Your task to perform on an android device: install app "Booking.com: Hotels and more" Image 0: 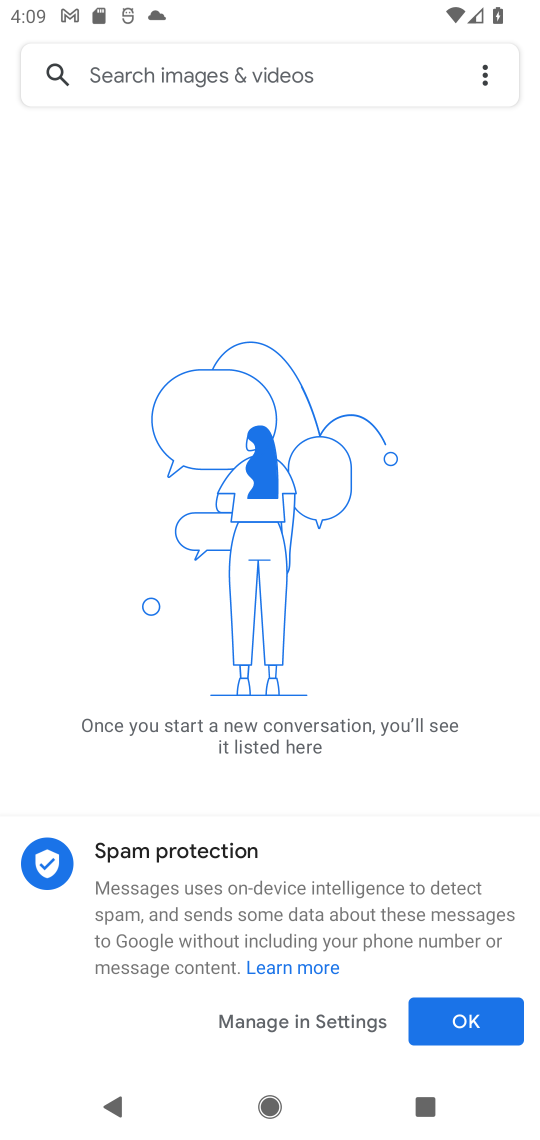
Step 0: press home button
Your task to perform on an android device: install app "Booking.com: Hotels and more" Image 1: 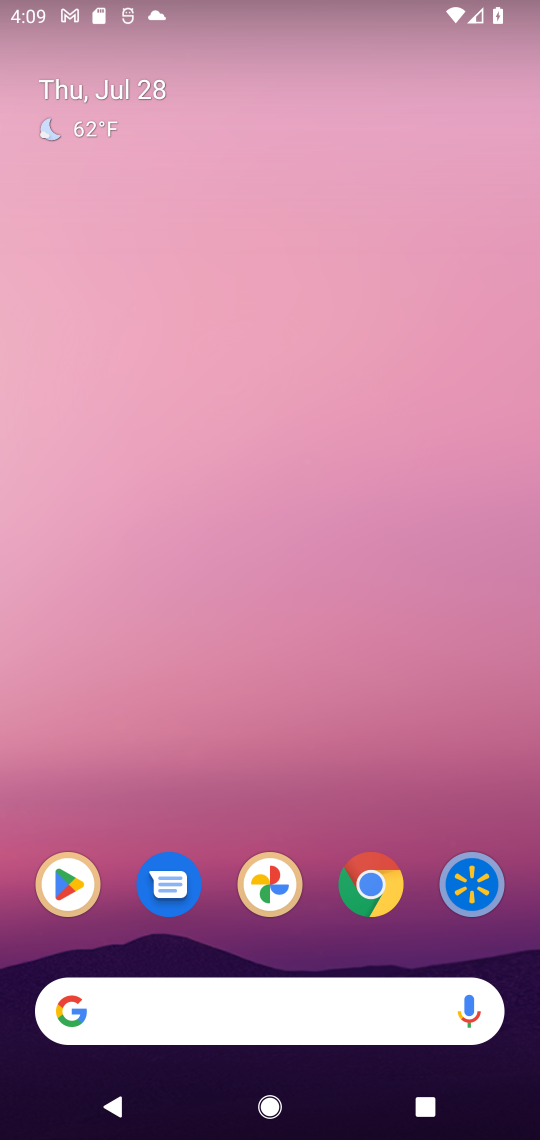
Step 1: click (59, 891)
Your task to perform on an android device: install app "Booking.com: Hotels and more" Image 2: 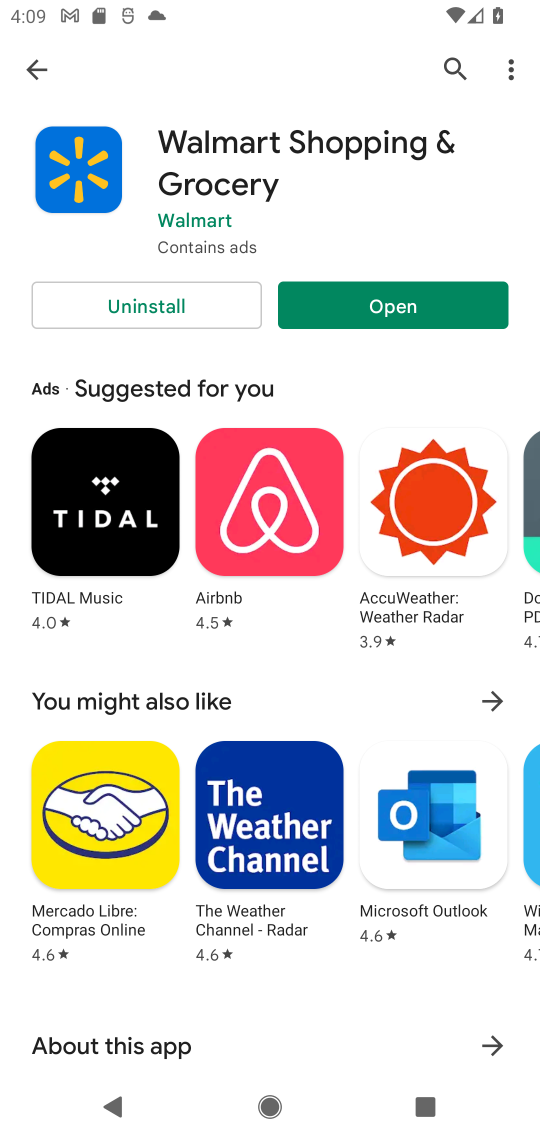
Step 2: click (458, 60)
Your task to perform on an android device: install app "Booking.com: Hotels and more" Image 3: 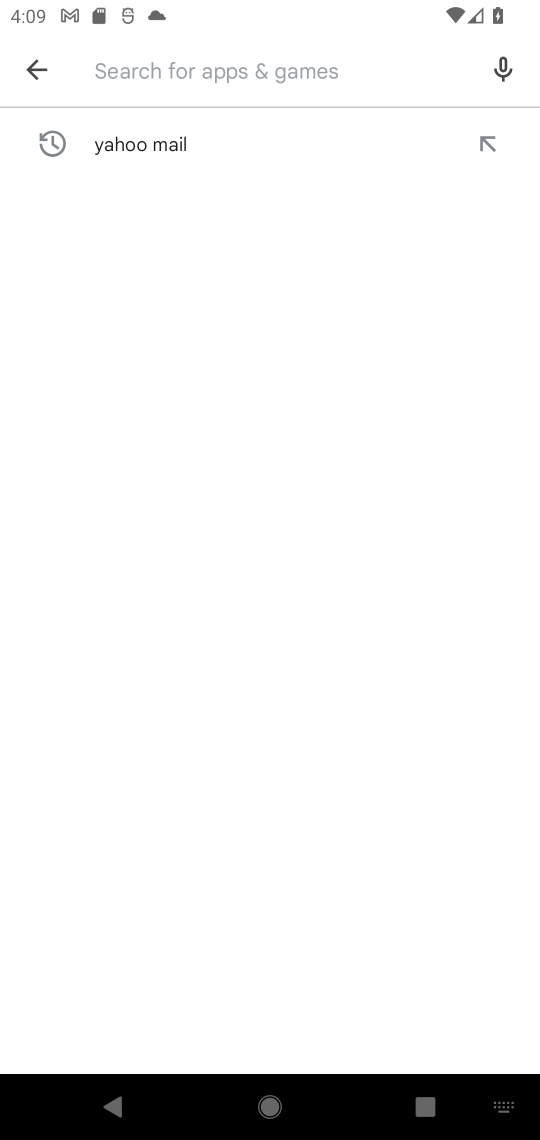
Step 3: type "Booking.com: Hotels and more"
Your task to perform on an android device: install app "Booking.com: Hotels and more" Image 4: 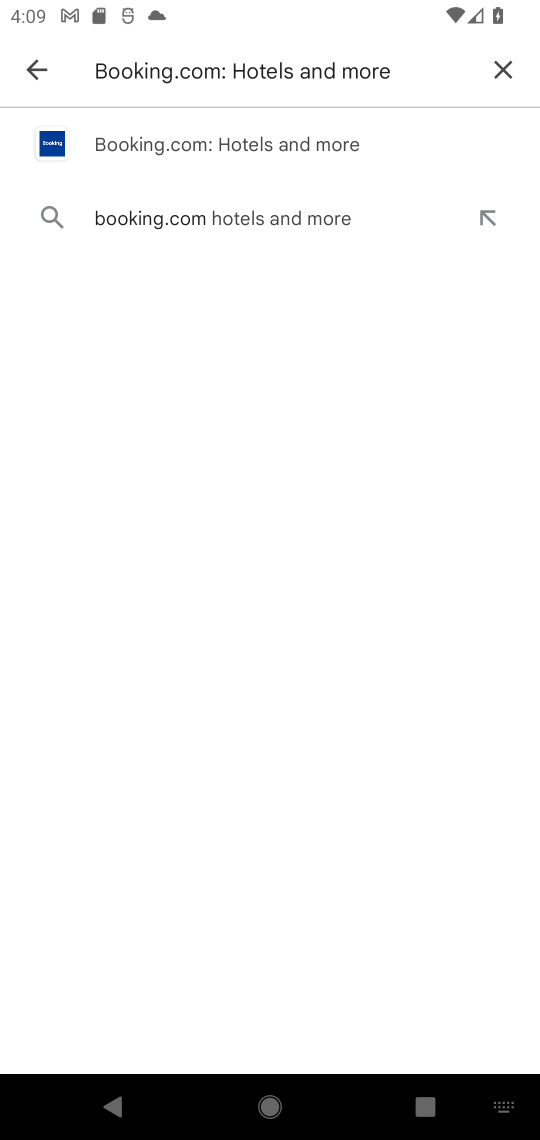
Step 4: click (355, 150)
Your task to perform on an android device: install app "Booking.com: Hotels and more" Image 5: 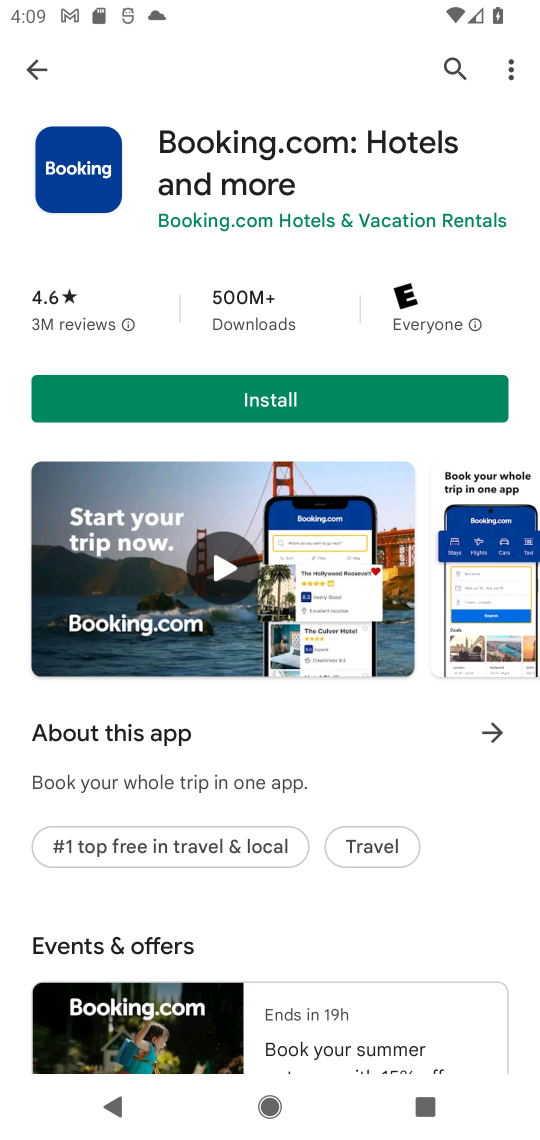
Step 5: click (361, 396)
Your task to perform on an android device: install app "Booking.com: Hotels and more" Image 6: 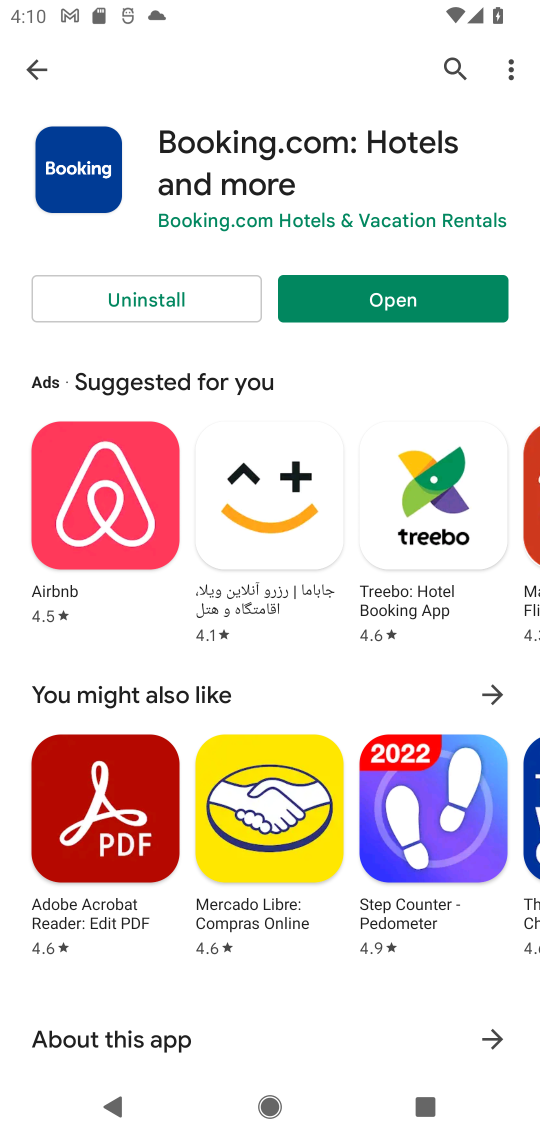
Step 6: task complete